Your task to perform on an android device: Open the stopwatch Image 0: 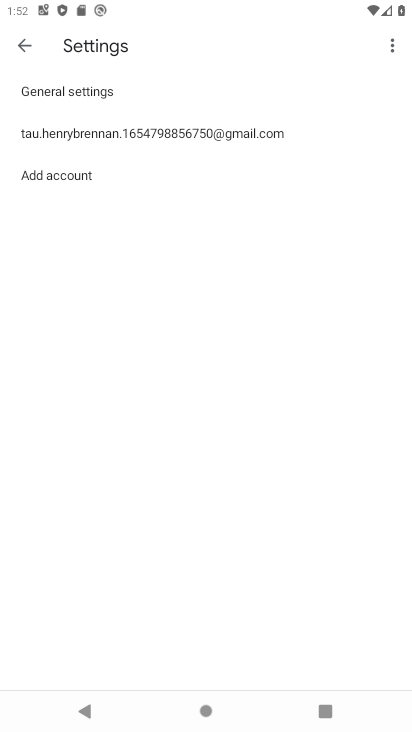
Step 0: press home button
Your task to perform on an android device: Open the stopwatch Image 1: 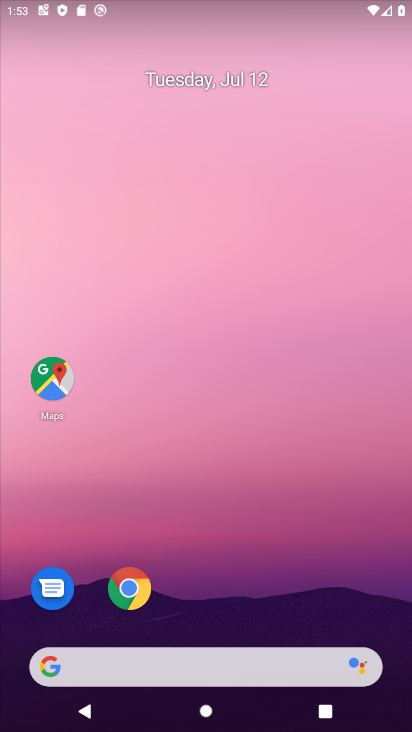
Step 1: drag from (195, 520) to (388, 1)
Your task to perform on an android device: Open the stopwatch Image 2: 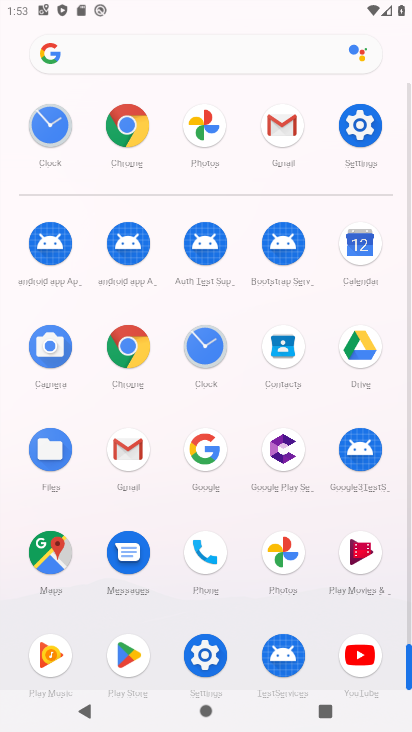
Step 2: click (211, 341)
Your task to perform on an android device: Open the stopwatch Image 3: 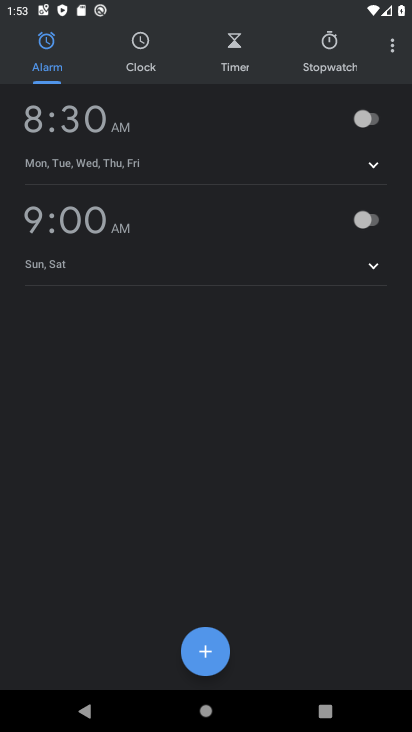
Step 3: click (341, 44)
Your task to perform on an android device: Open the stopwatch Image 4: 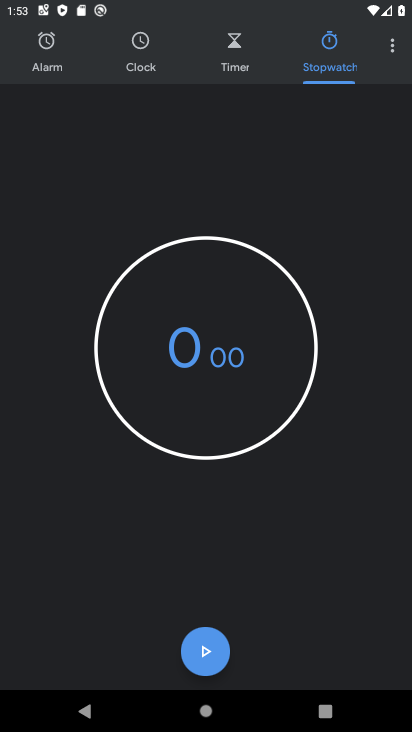
Step 4: drag from (297, 547) to (266, 276)
Your task to perform on an android device: Open the stopwatch Image 5: 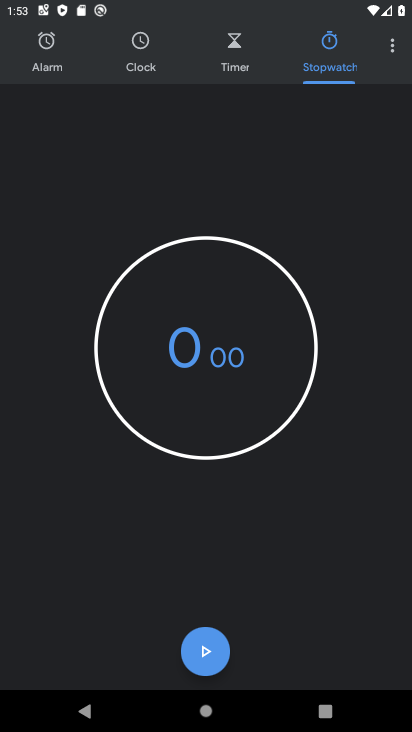
Step 5: drag from (246, 671) to (221, 75)
Your task to perform on an android device: Open the stopwatch Image 6: 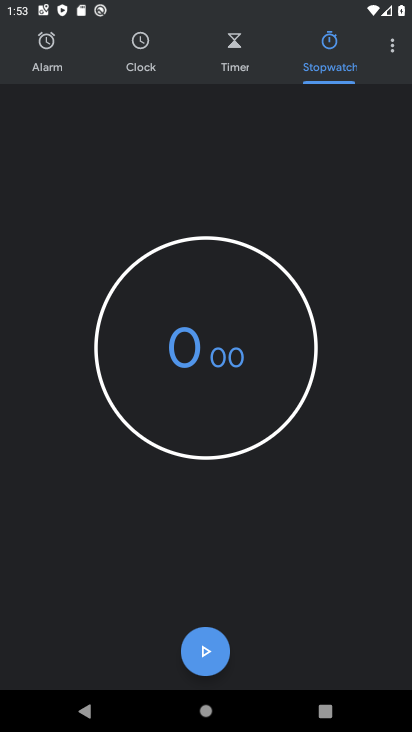
Step 6: drag from (258, 667) to (262, 251)
Your task to perform on an android device: Open the stopwatch Image 7: 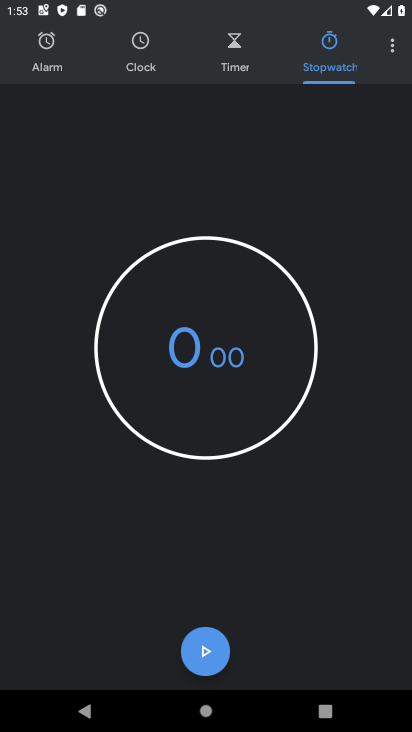
Step 7: click (197, 662)
Your task to perform on an android device: Open the stopwatch Image 8: 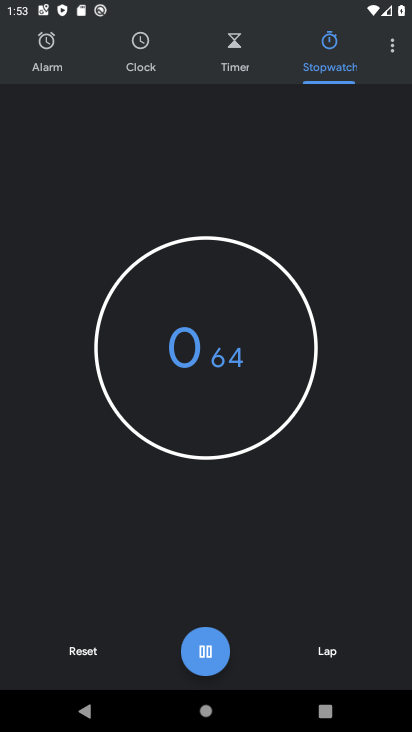
Step 8: task complete